Your task to perform on an android device: toggle notification dots Image 0: 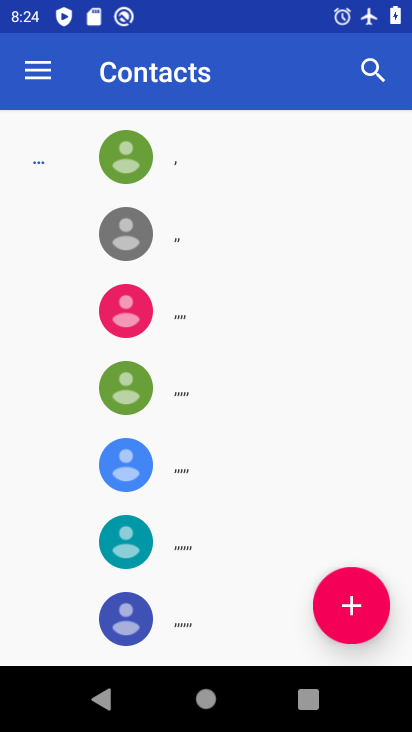
Step 0: press home button
Your task to perform on an android device: toggle notification dots Image 1: 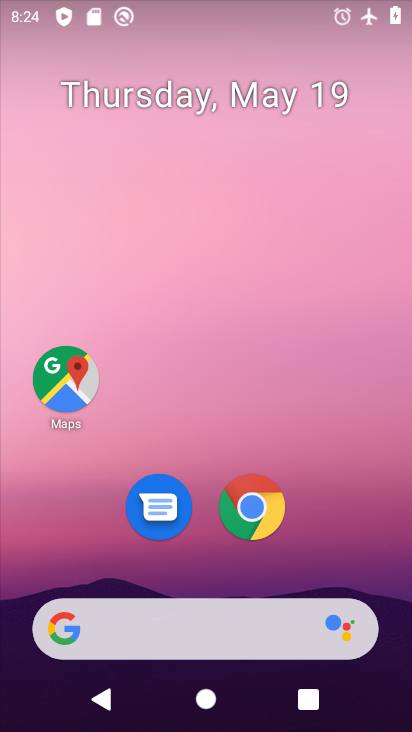
Step 1: drag from (227, 724) to (229, 249)
Your task to perform on an android device: toggle notification dots Image 2: 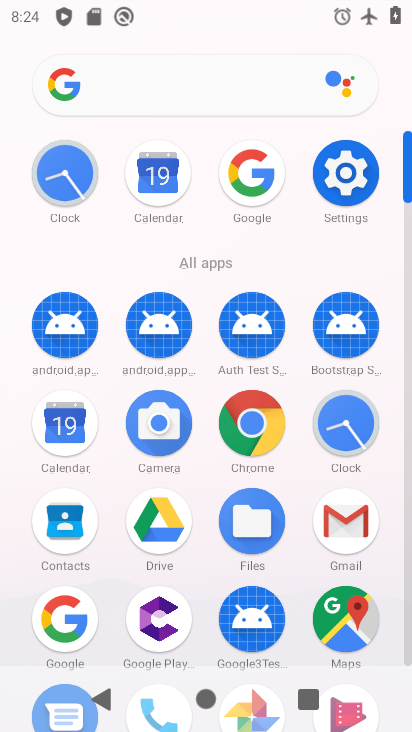
Step 2: click (332, 167)
Your task to perform on an android device: toggle notification dots Image 3: 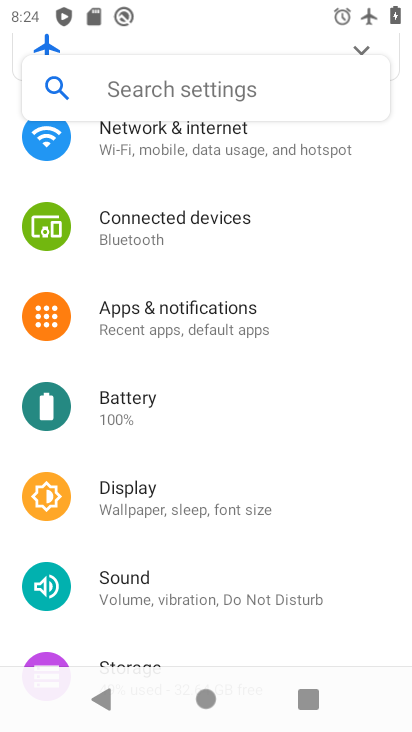
Step 3: click (253, 312)
Your task to perform on an android device: toggle notification dots Image 4: 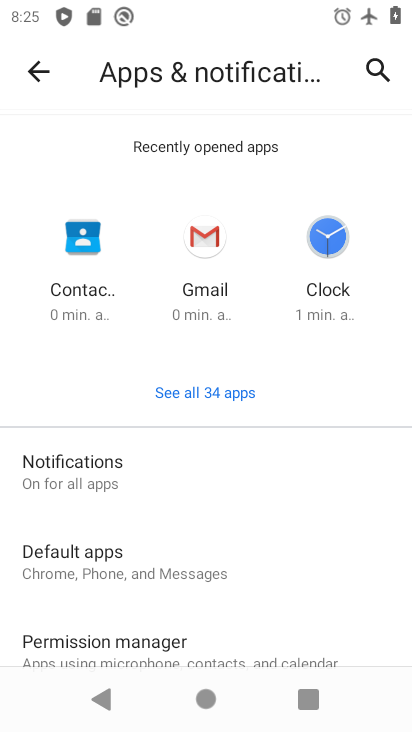
Step 4: click (74, 462)
Your task to perform on an android device: toggle notification dots Image 5: 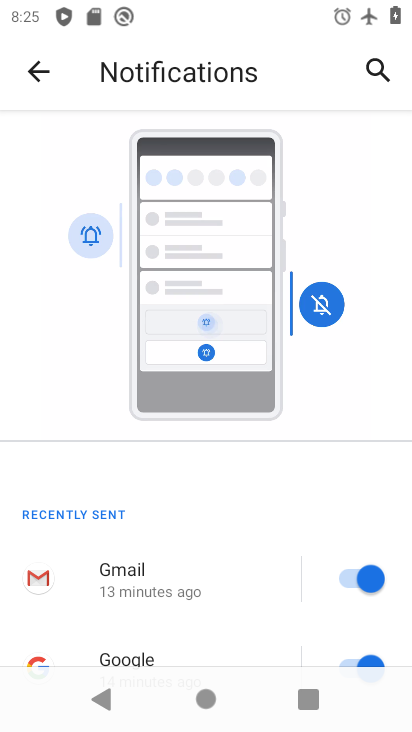
Step 5: drag from (121, 632) to (125, 202)
Your task to perform on an android device: toggle notification dots Image 6: 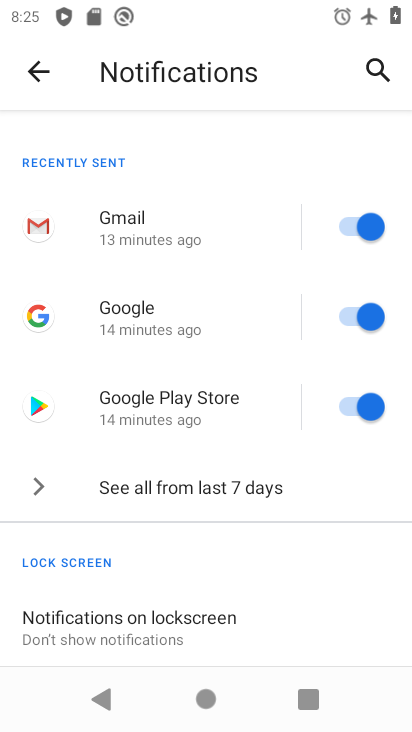
Step 6: drag from (198, 602) to (201, 280)
Your task to perform on an android device: toggle notification dots Image 7: 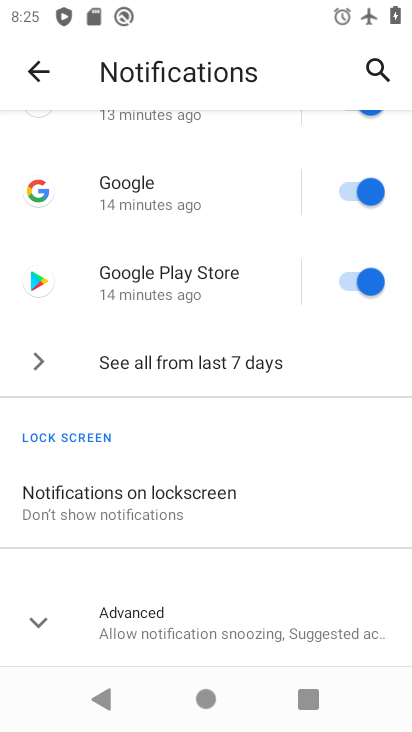
Step 7: click (184, 620)
Your task to perform on an android device: toggle notification dots Image 8: 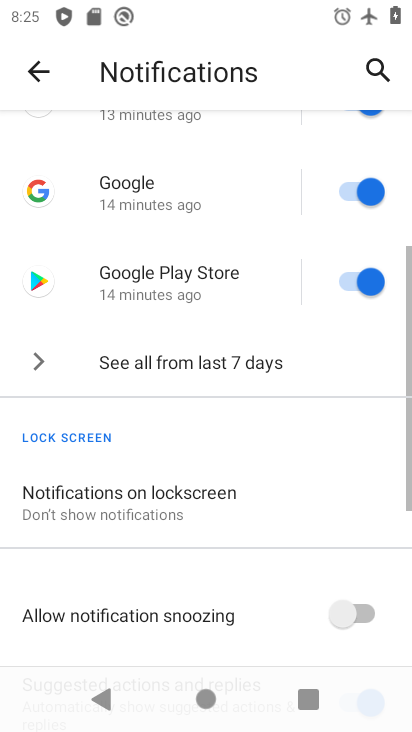
Step 8: drag from (214, 595) to (216, 260)
Your task to perform on an android device: toggle notification dots Image 9: 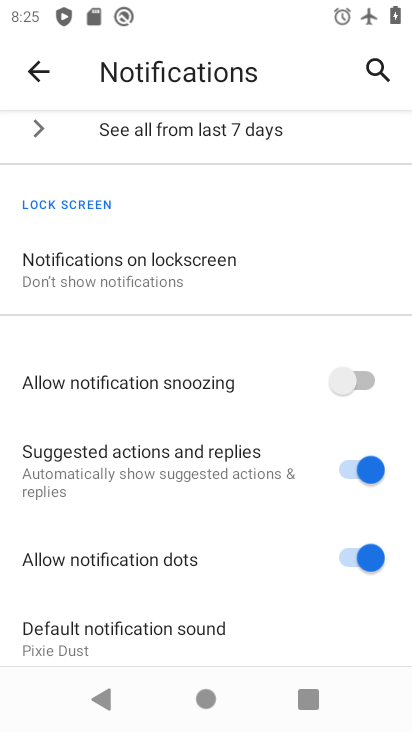
Step 9: click (358, 556)
Your task to perform on an android device: toggle notification dots Image 10: 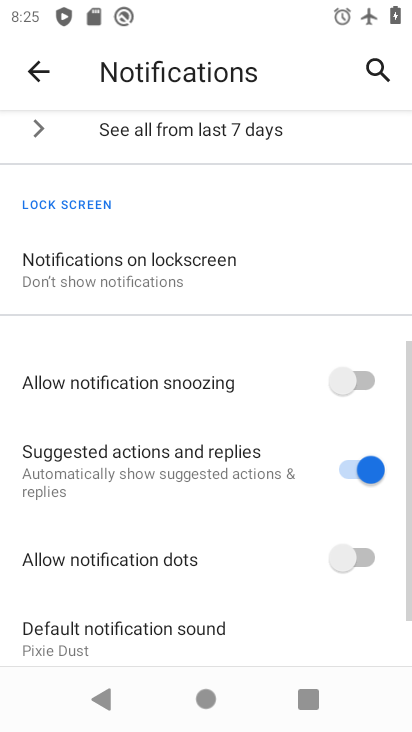
Step 10: task complete